Your task to perform on an android device: open app "Spotify" (install if not already installed), go to login, and select forgot password Image 0: 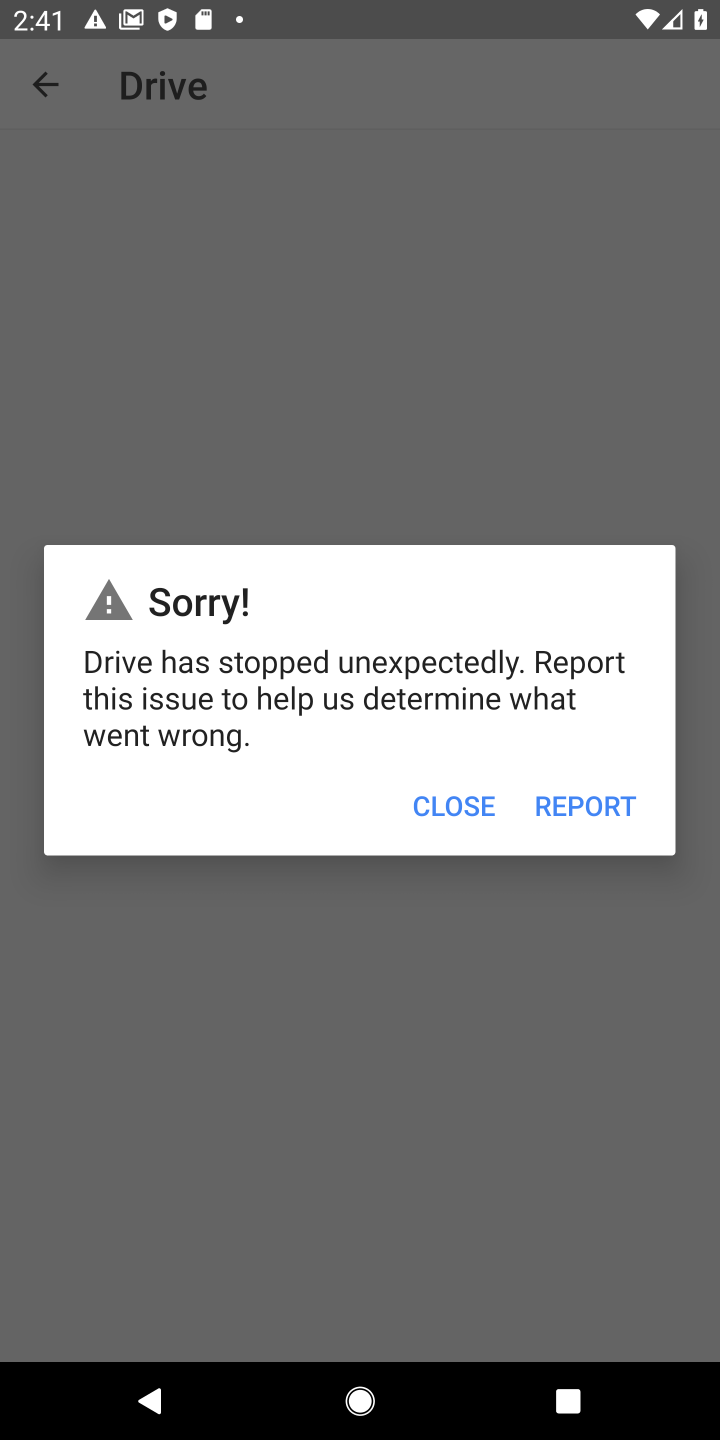
Step 0: press home button
Your task to perform on an android device: open app "Spotify" (install if not already installed), go to login, and select forgot password Image 1: 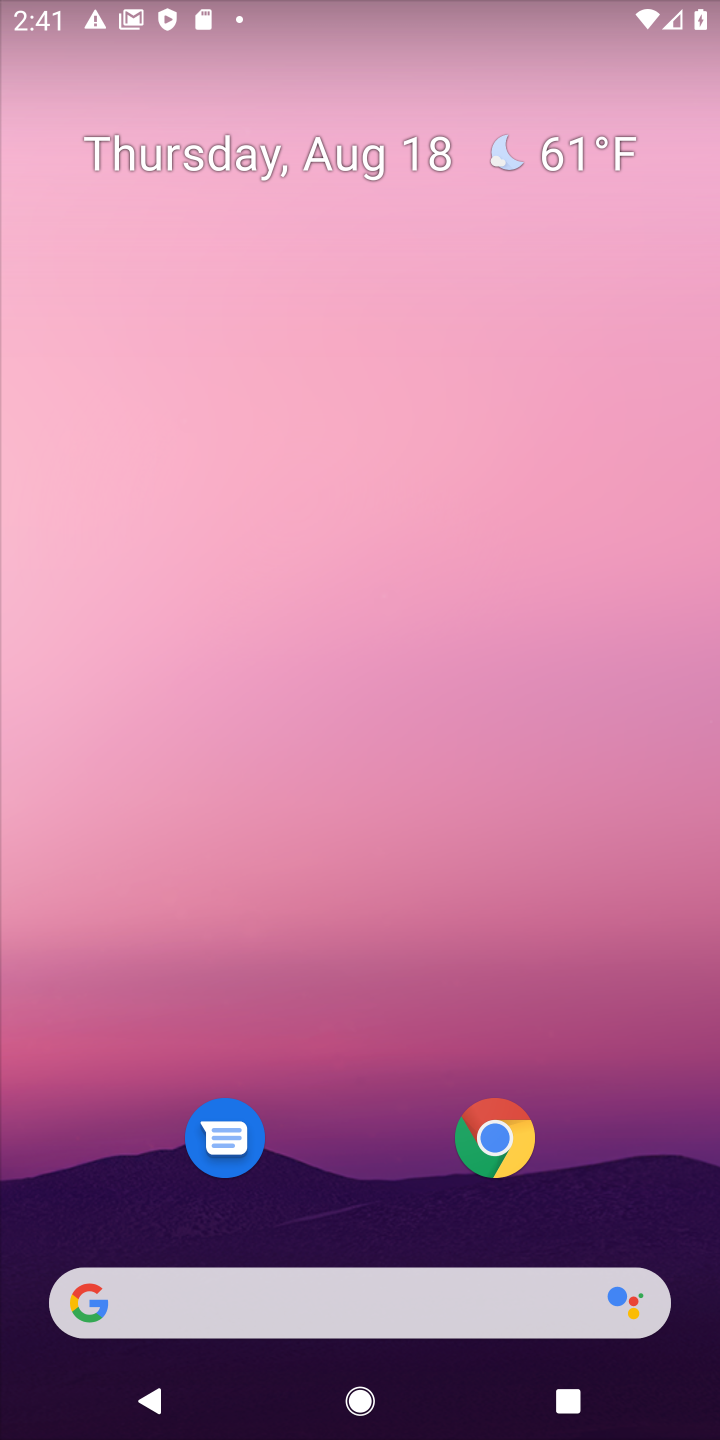
Step 1: drag from (320, 1115) to (491, 3)
Your task to perform on an android device: open app "Spotify" (install if not already installed), go to login, and select forgot password Image 2: 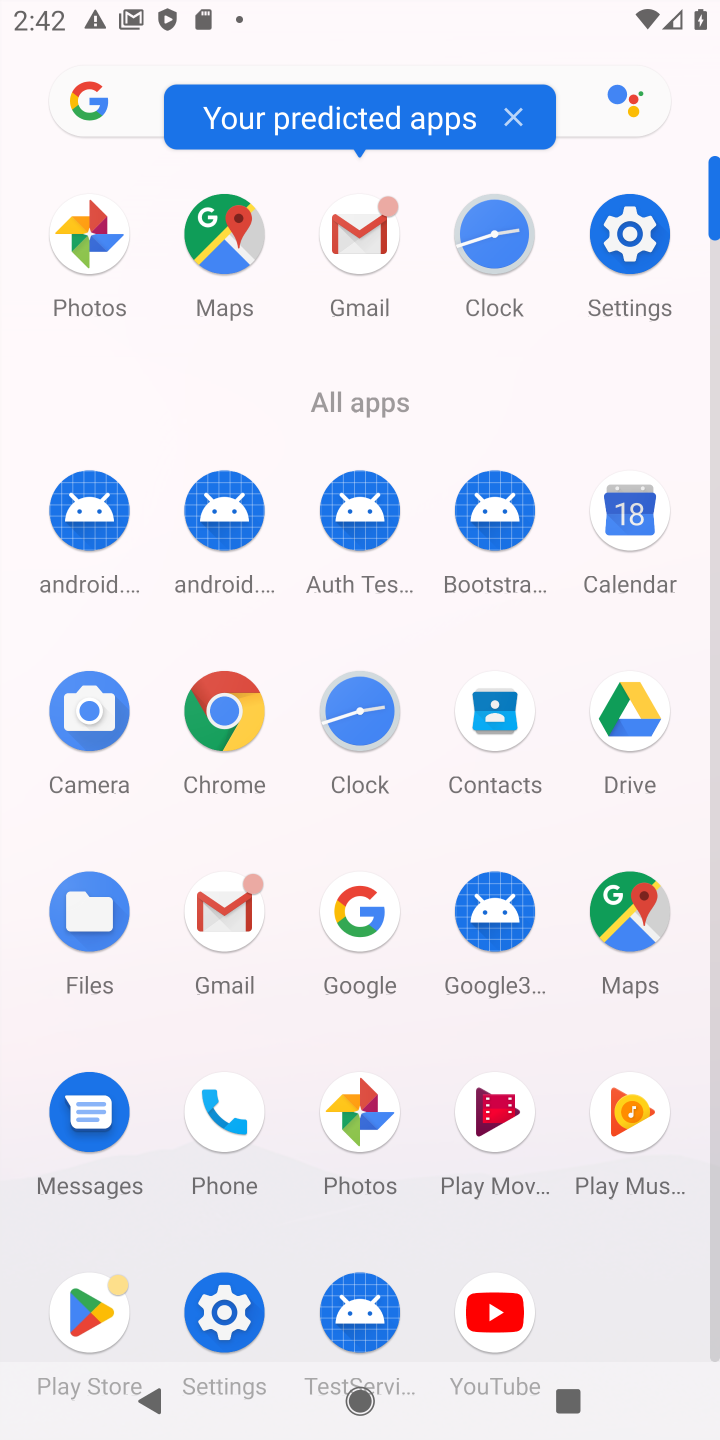
Step 2: click (93, 1290)
Your task to perform on an android device: open app "Spotify" (install if not already installed), go to login, and select forgot password Image 3: 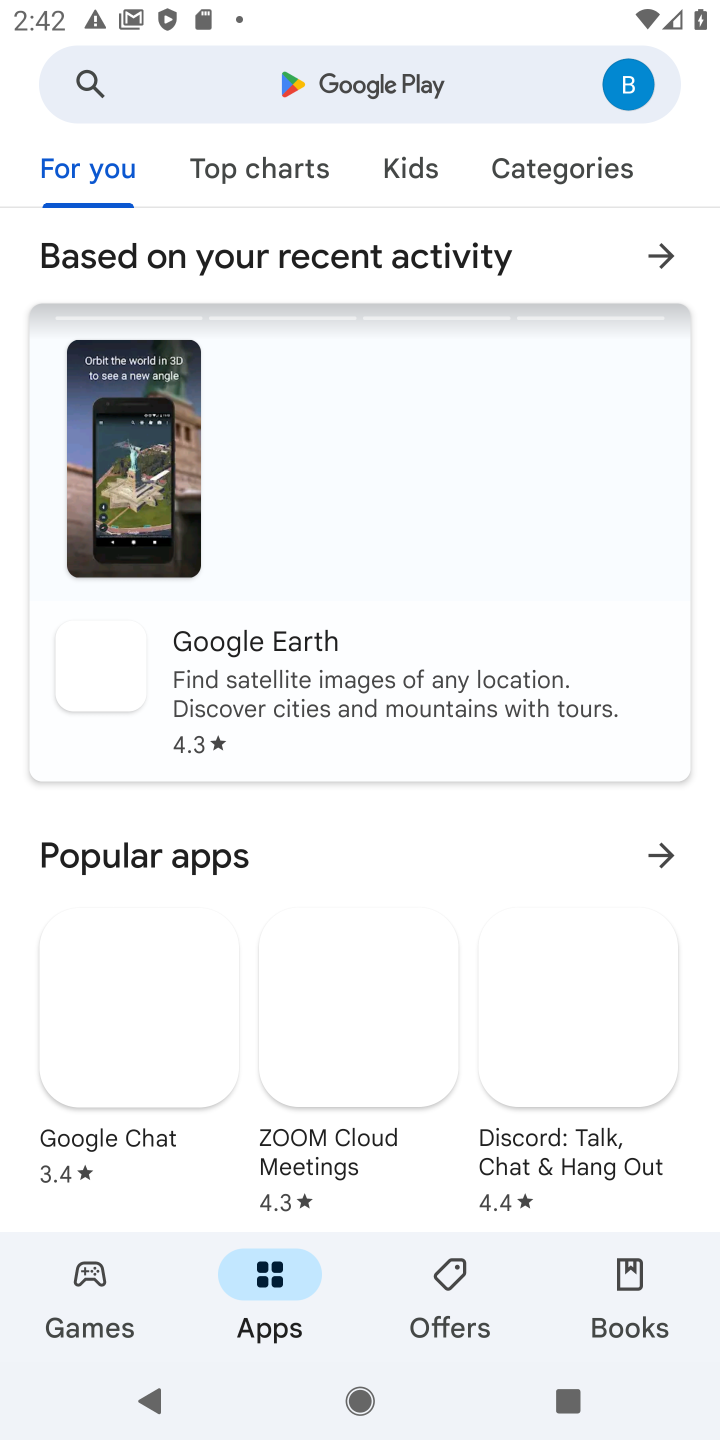
Step 3: click (379, 88)
Your task to perform on an android device: open app "Spotify" (install if not already installed), go to login, and select forgot password Image 4: 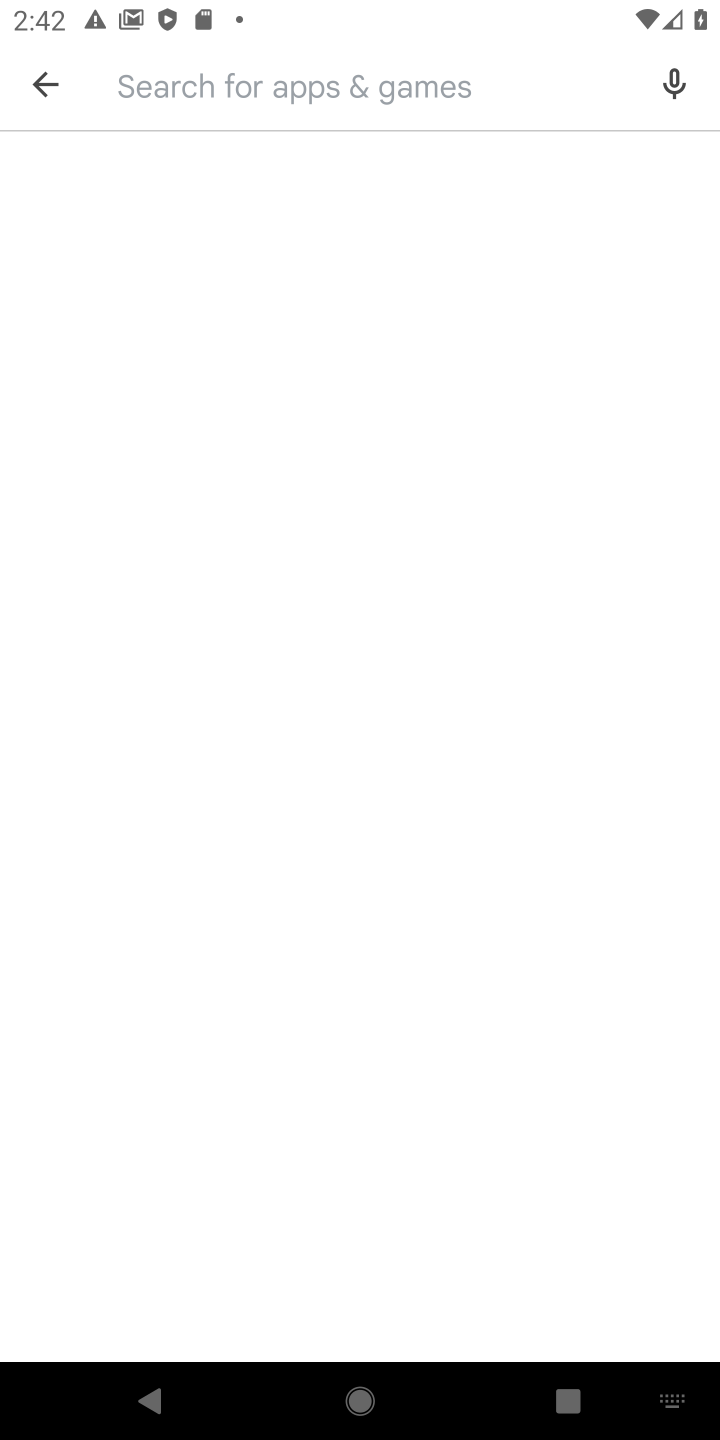
Step 4: type "spotify"
Your task to perform on an android device: open app "Spotify" (install if not already installed), go to login, and select forgot password Image 5: 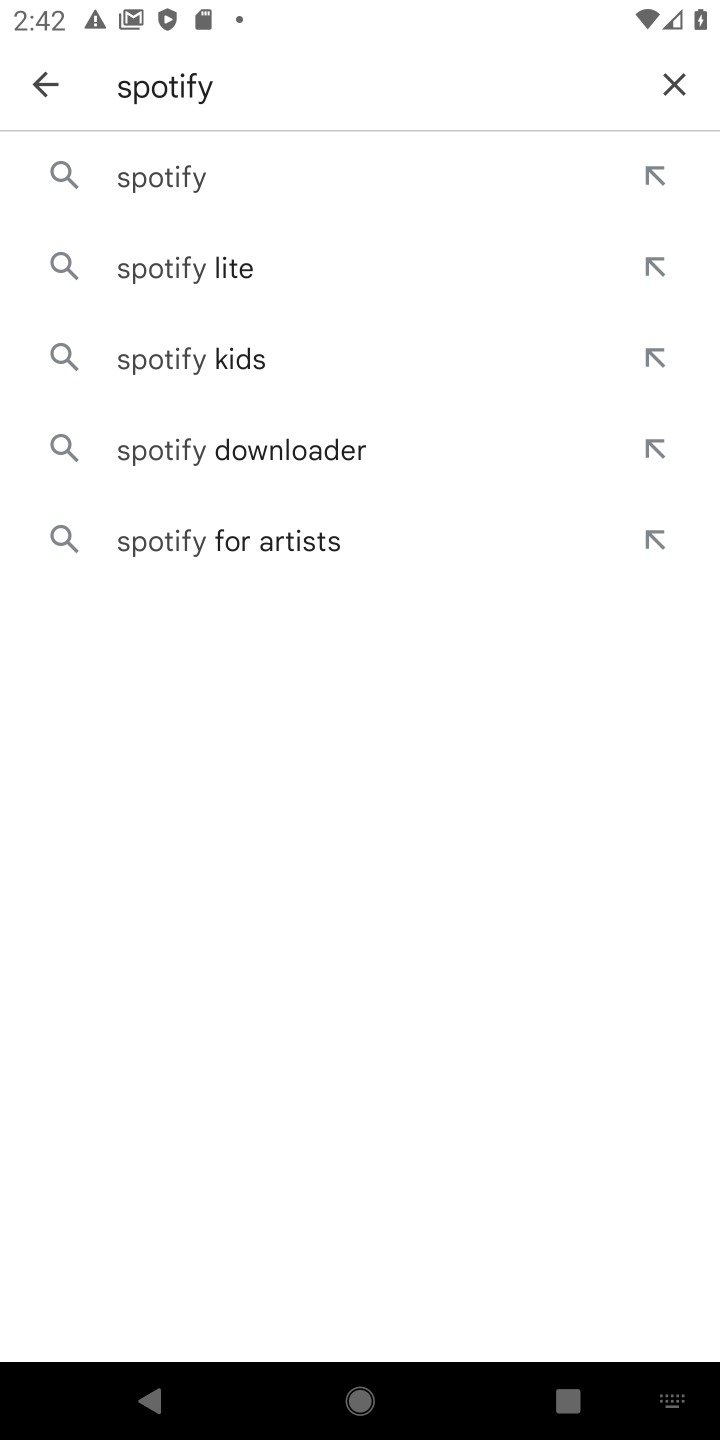
Step 5: click (225, 171)
Your task to perform on an android device: open app "Spotify" (install if not already installed), go to login, and select forgot password Image 6: 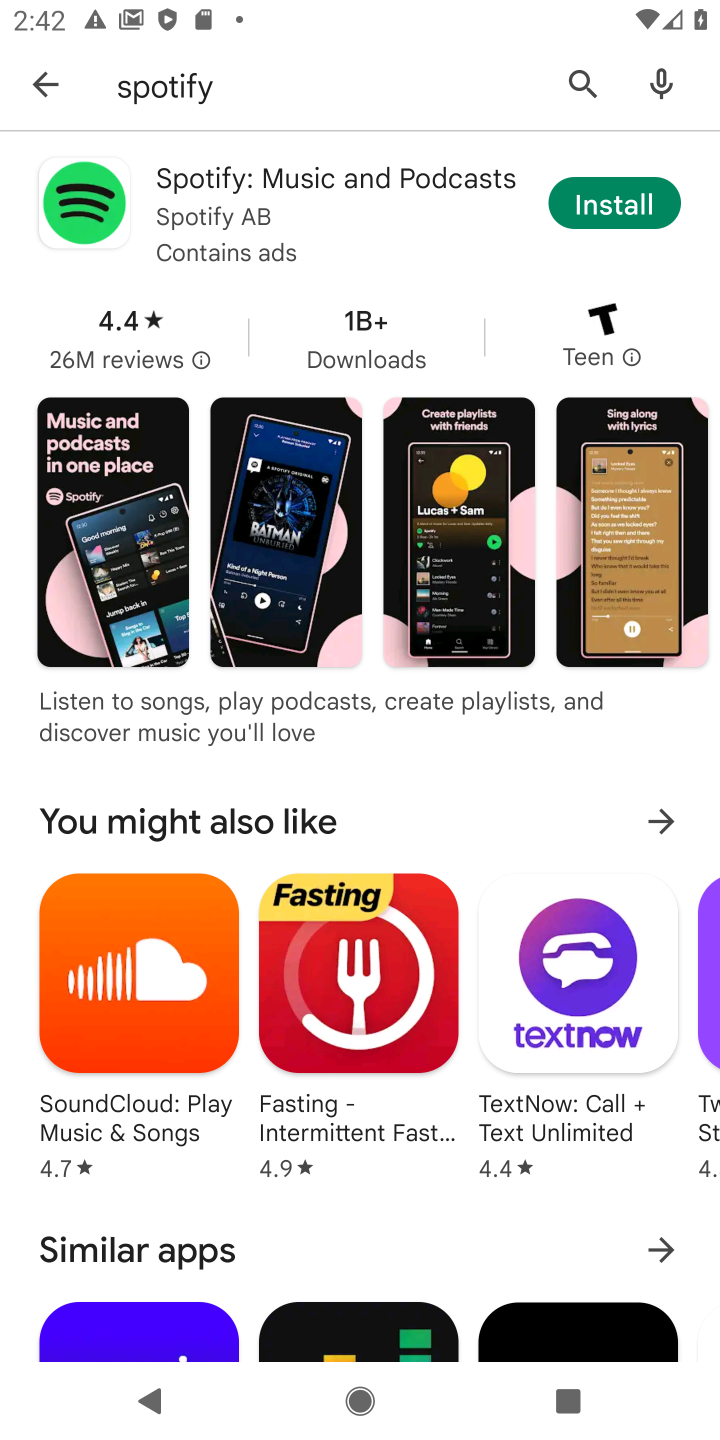
Step 6: click (575, 187)
Your task to perform on an android device: open app "Spotify" (install if not already installed), go to login, and select forgot password Image 7: 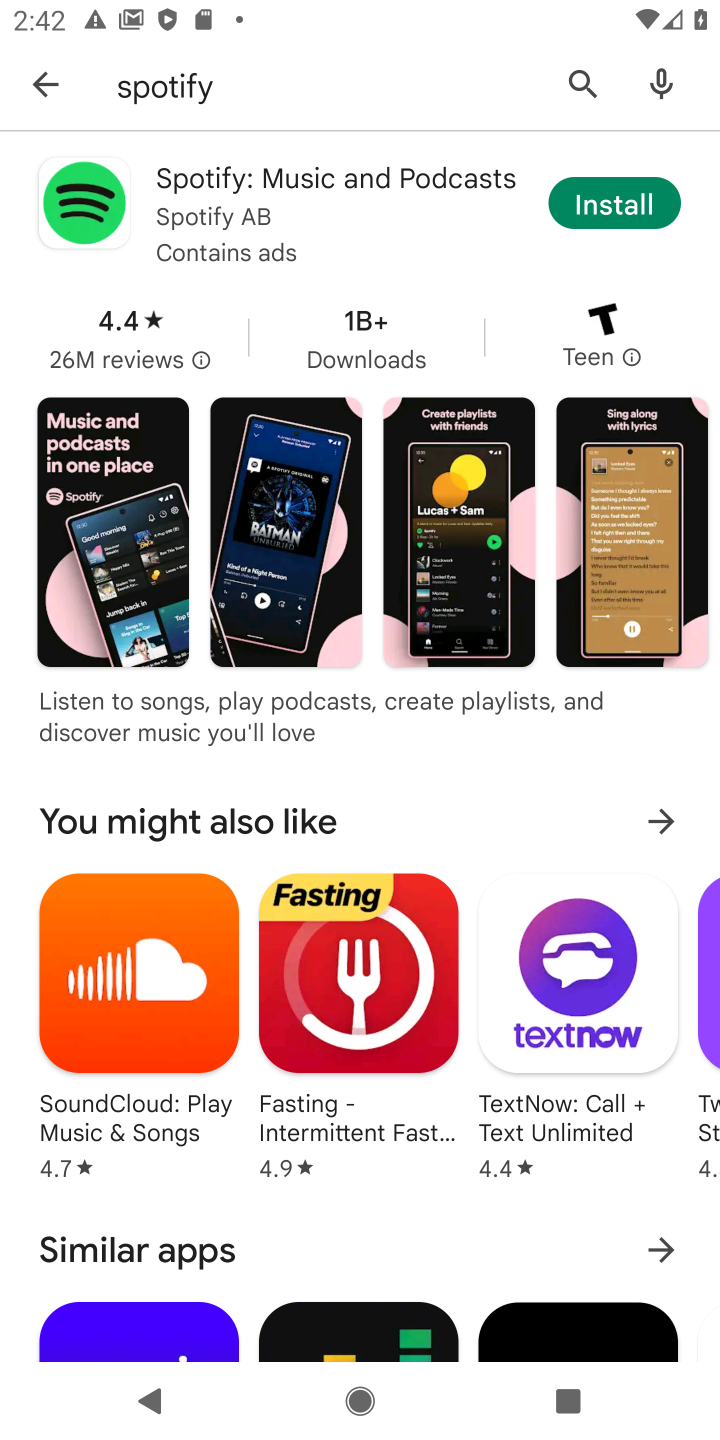
Step 7: click (660, 212)
Your task to perform on an android device: open app "Spotify" (install if not already installed), go to login, and select forgot password Image 8: 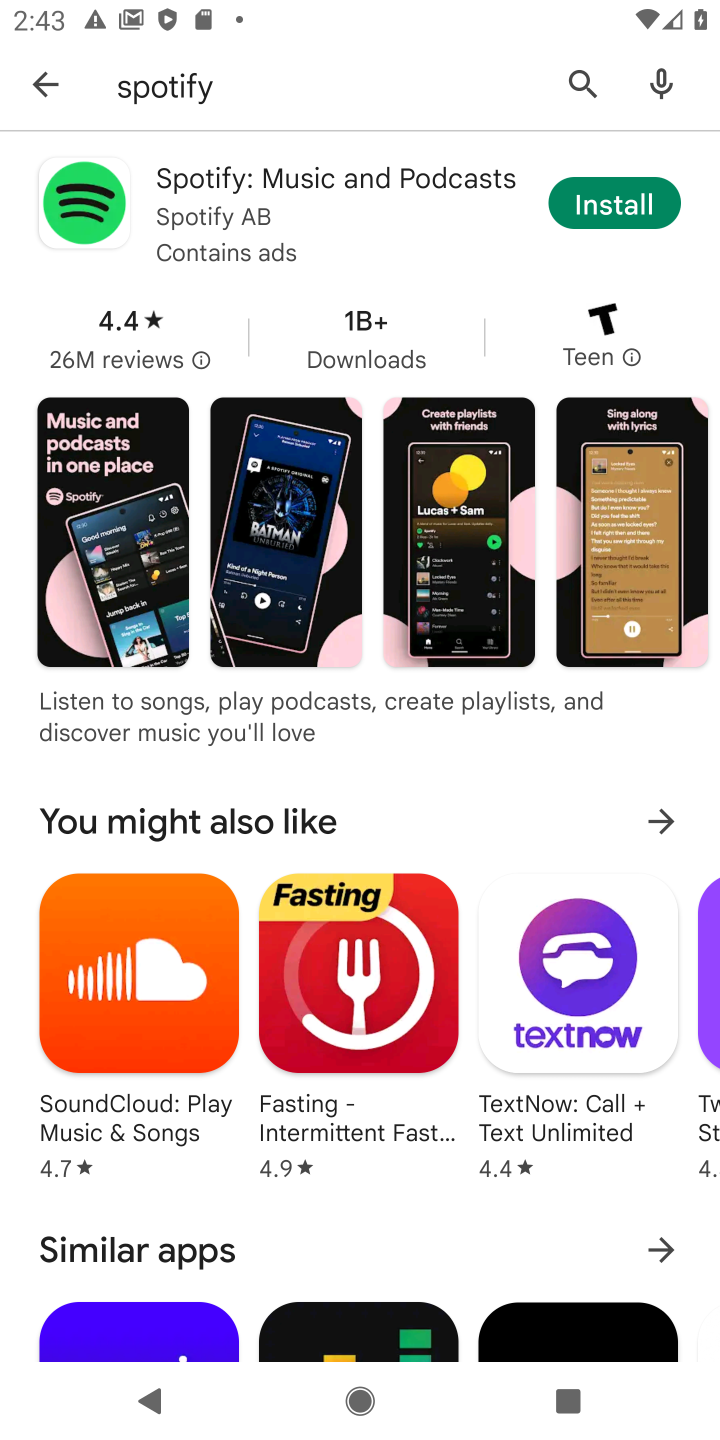
Step 8: click (616, 203)
Your task to perform on an android device: open app "Spotify" (install if not already installed), go to login, and select forgot password Image 9: 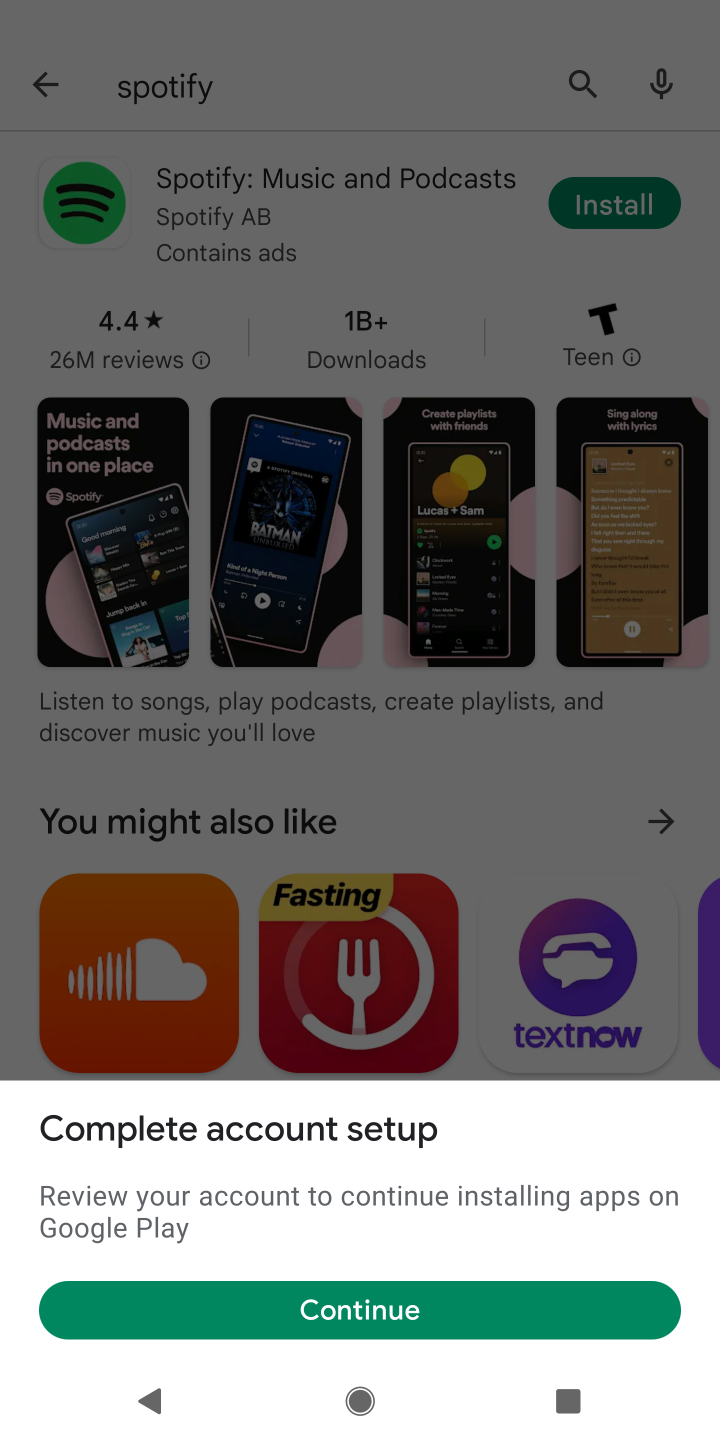
Step 9: click (254, 1301)
Your task to perform on an android device: open app "Spotify" (install if not already installed), go to login, and select forgot password Image 10: 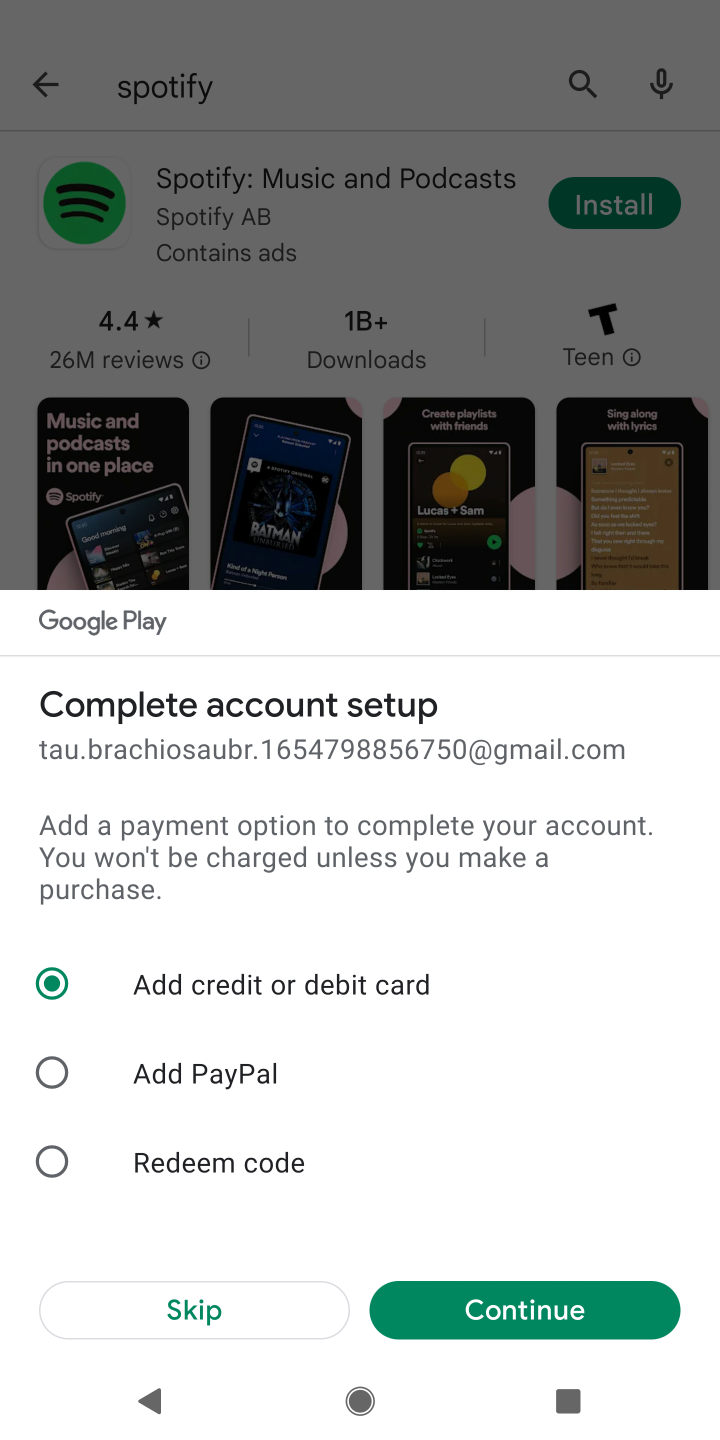
Step 10: click (223, 1307)
Your task to perform on an android device: open app "Spotify" (install if not already installed), go to login, and select forgot password Image 11: 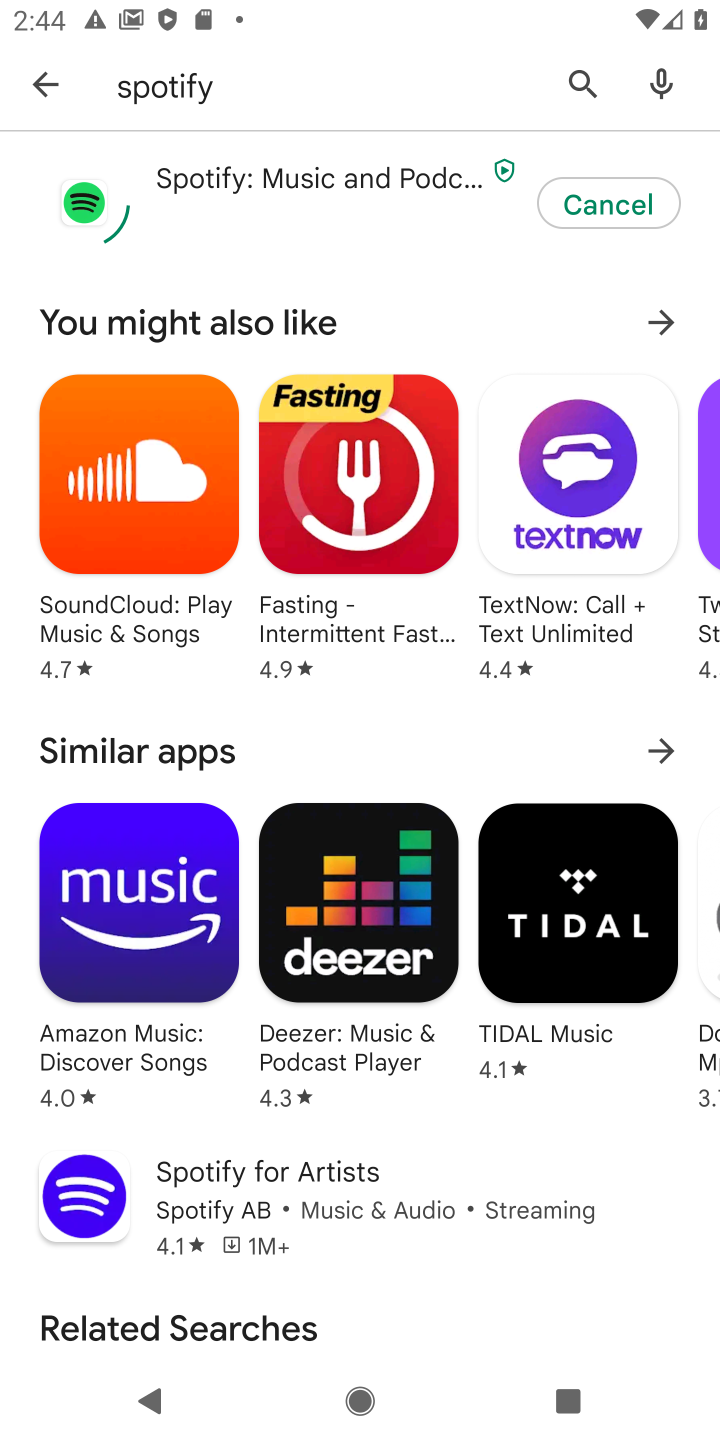
Step 11: click (217, 172)
Your task to perform on an android device: open app "Spotify" (install if not already installed), go to login, and select forgot password Image 12: 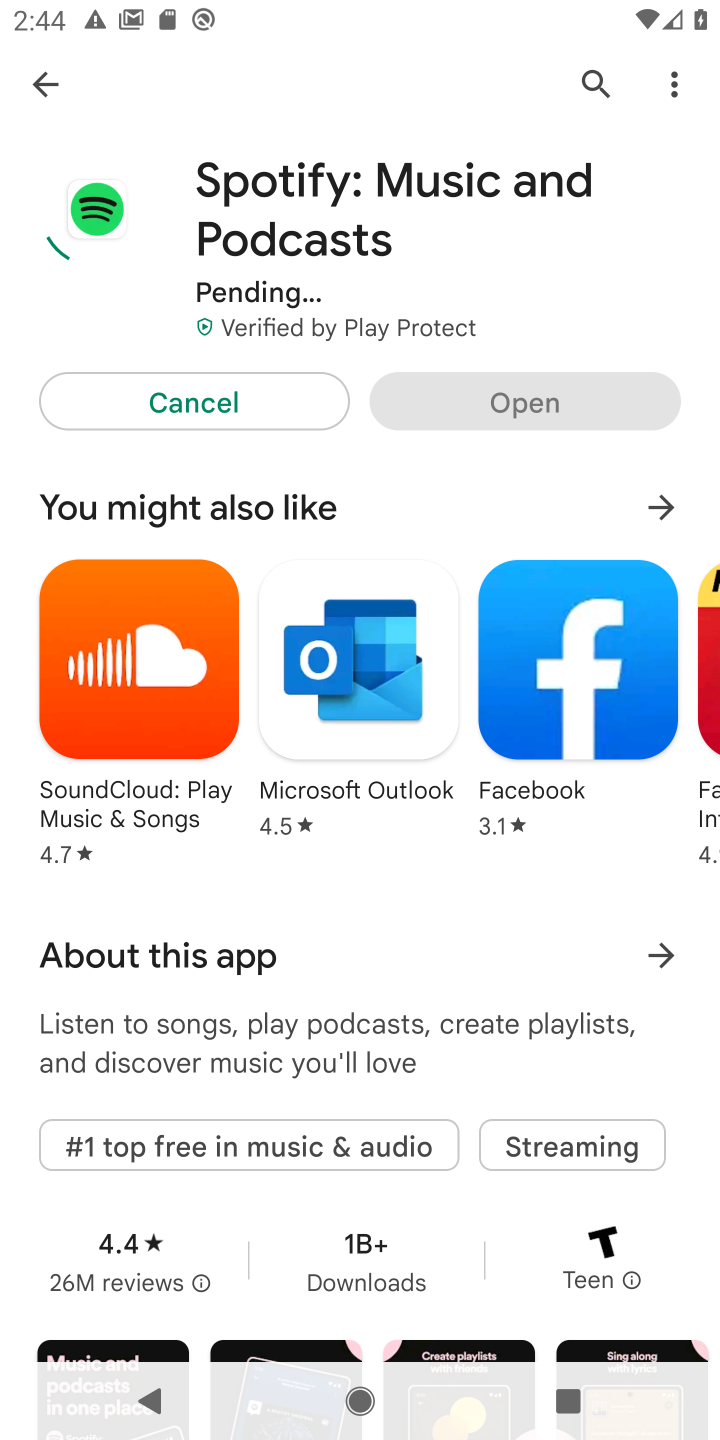
Step 12: click (51, 85)
Your task to perform on an android device: open app "Spotify" (install if not already installed), go to login, and select forgot password Image 13: 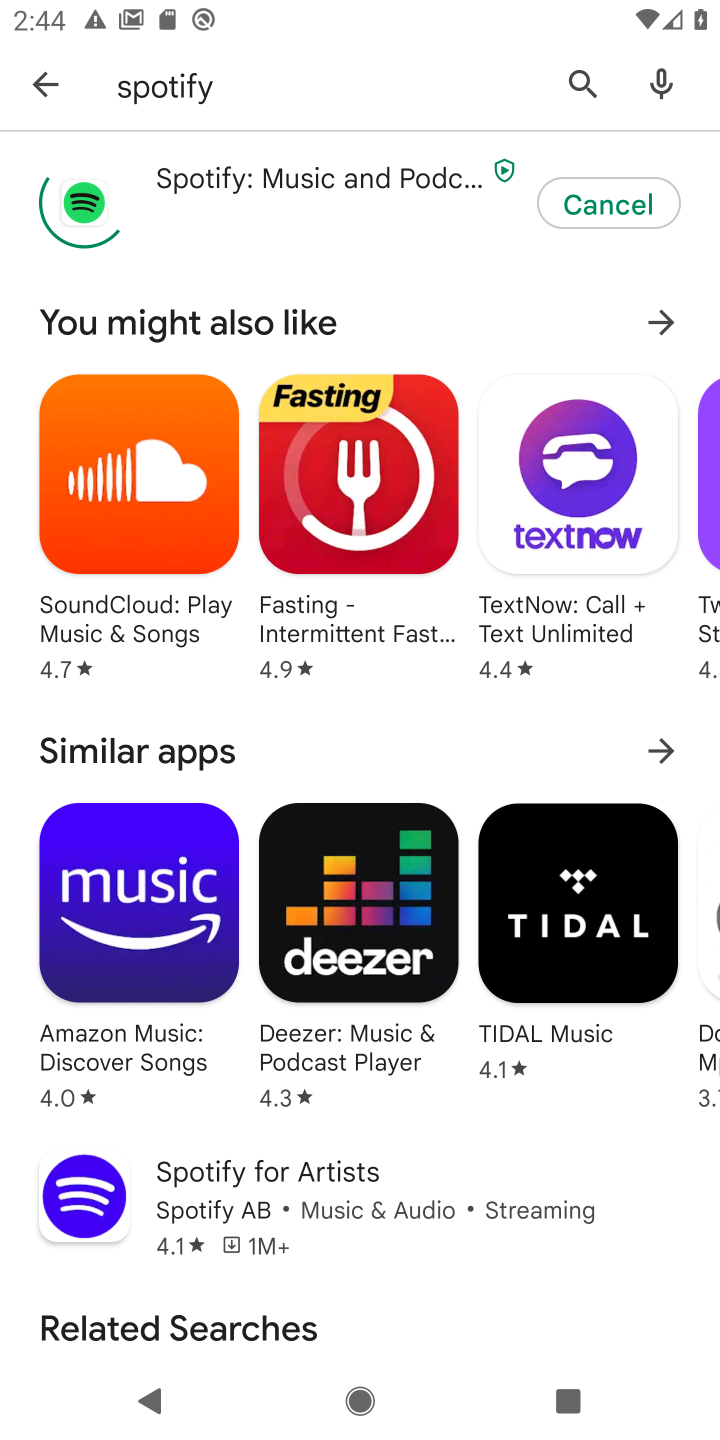
Step 13: click (216, 173)
Your task to perform on an android device: open app "Spotify" (install if not already installed), go to login, and select forgot password Image 14: 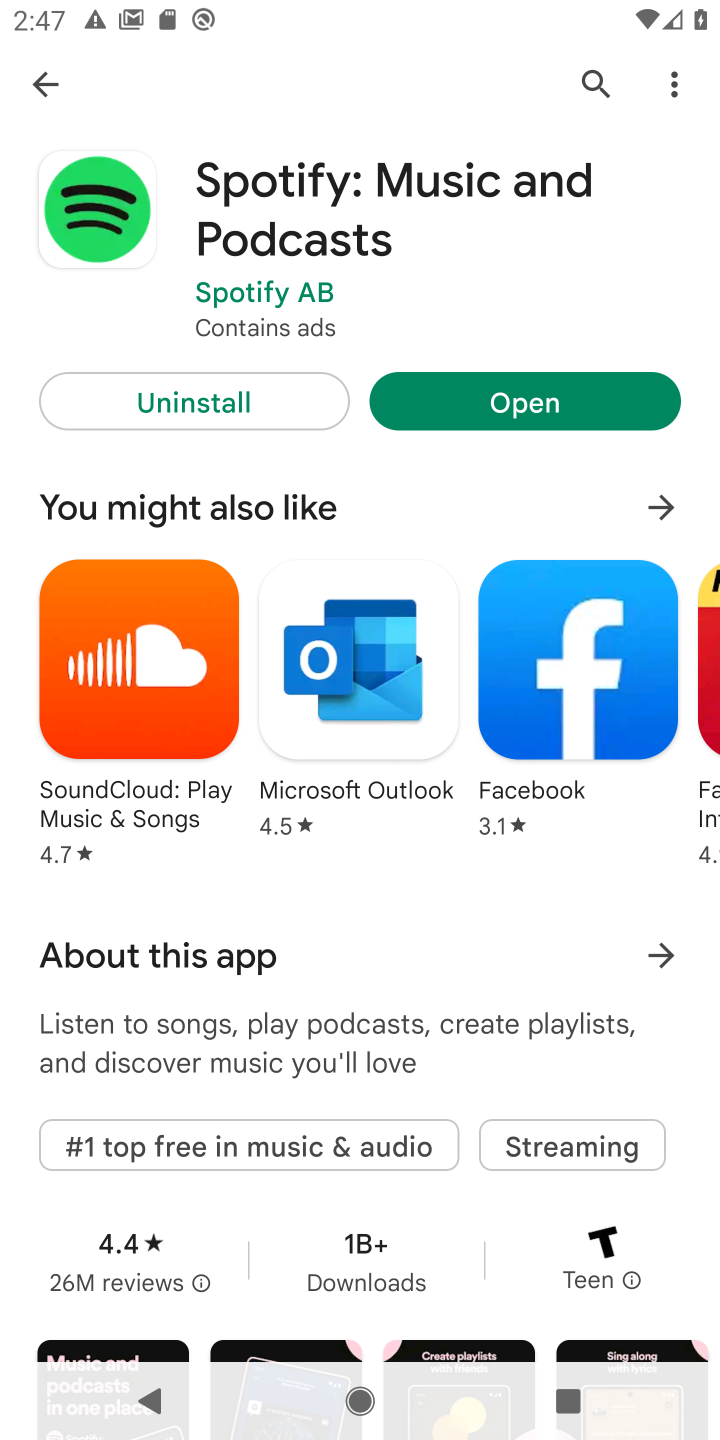
Step 14: click (482, 420)
Your task to perform on an android device: open app "Spotify" (install if not already installed), go to login, and select forgot password Image 15: 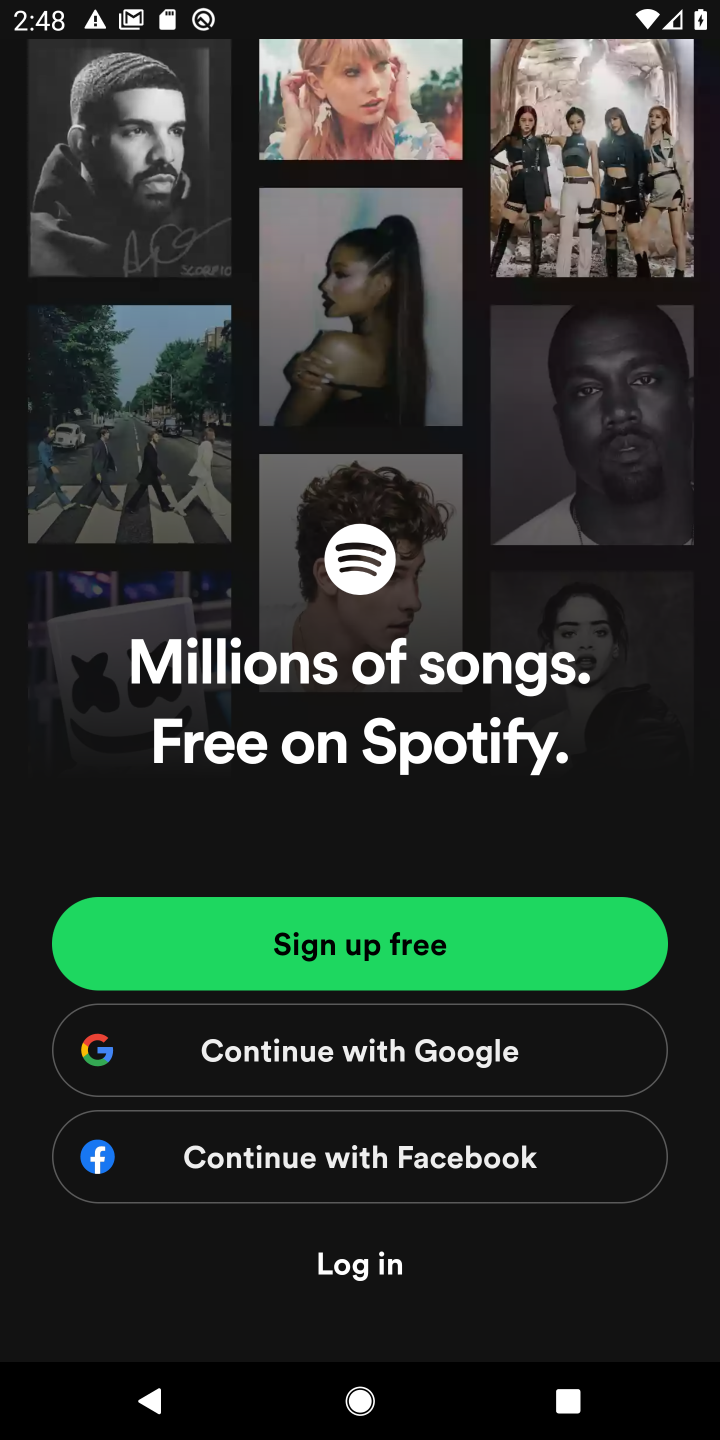
Step 15: click (391, 1272)
Your task to perform on an android device: open app "Spotify" (install if not already installed), go to login, and select forgot password Image 16: 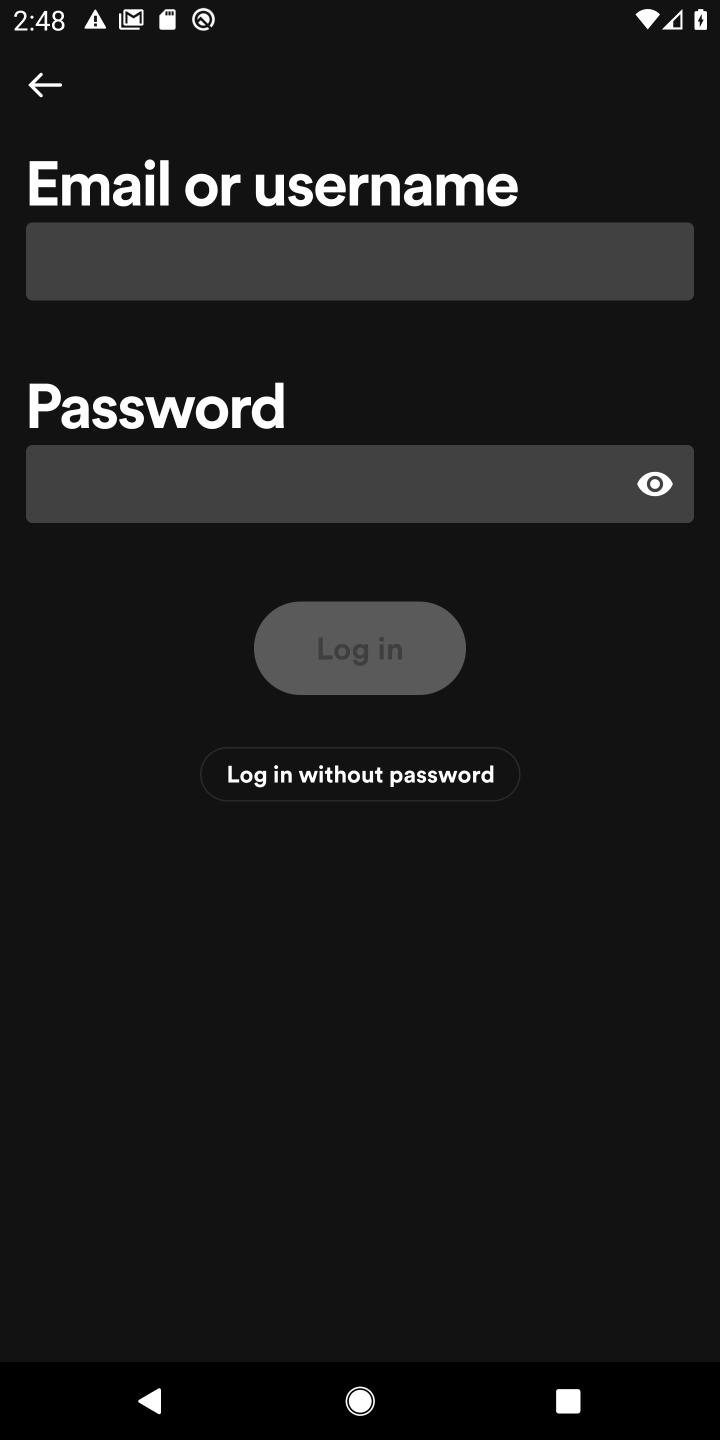
Step 16: task complete